Your task to perform on an android device: Open Yahoo.com Image 0: 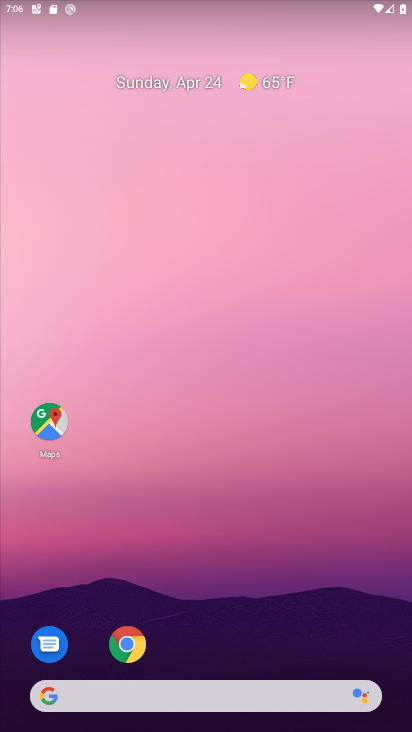
Step 0: press home button
Your task to perform on an android device: Open Yahoo.com Image 1: 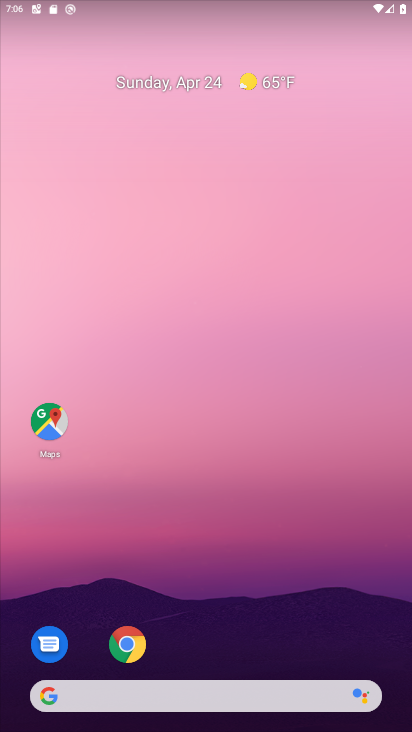
Step 1: click (124, 638)
Your task to perform on an android device: Open Yahoo.com Image 2: 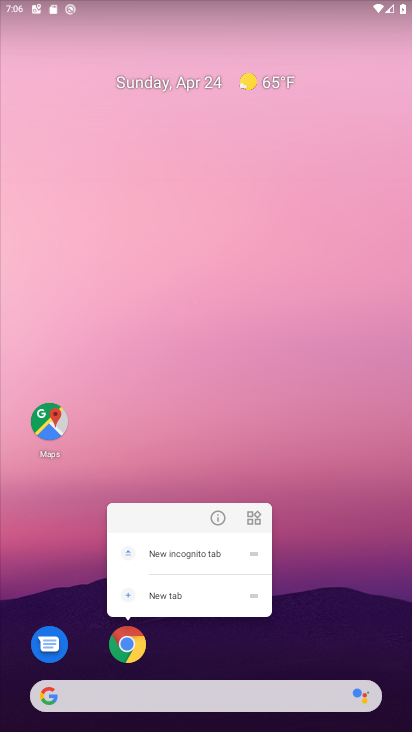
Step 2: click (125, 639)
Your task to perform on an android device: Open Yahoo.com Image 3: 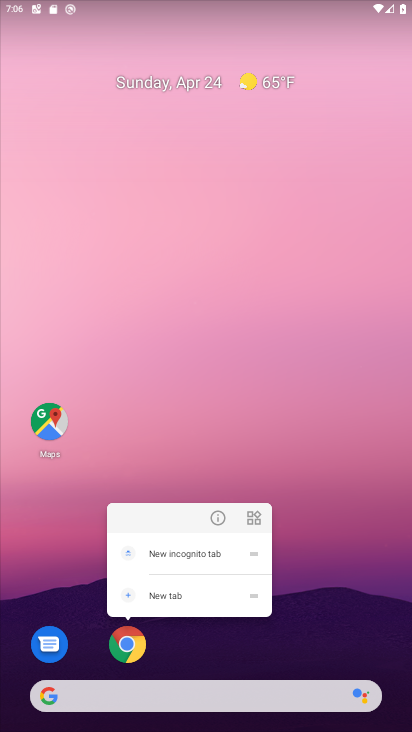
Step 3: click (282, 649)
Your task to perform on an android device: Open Yahoo.com Image 4: 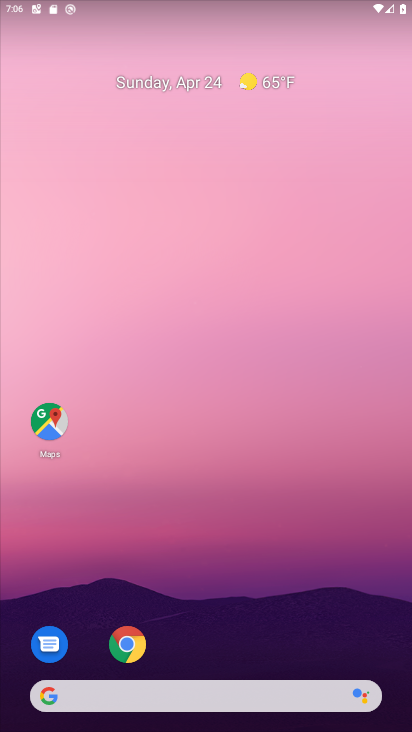
Step 4: click (124, 638)
Your task to perform on an android device: Open Yahoo.com Image 5: 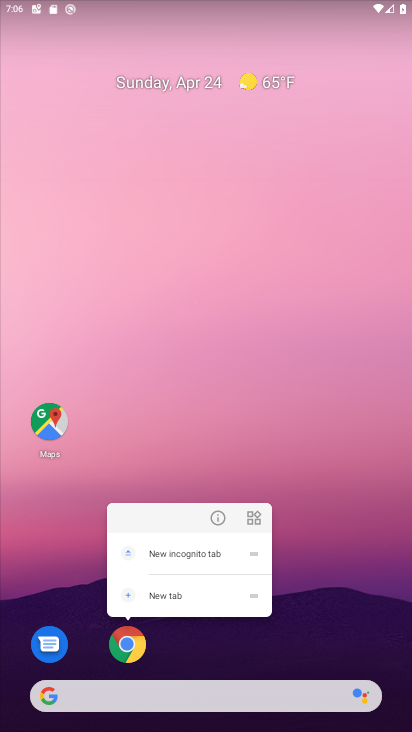
Step 5: click (205, 650)
Your task to perform on an android device: Open Yahoo.com Image 6: 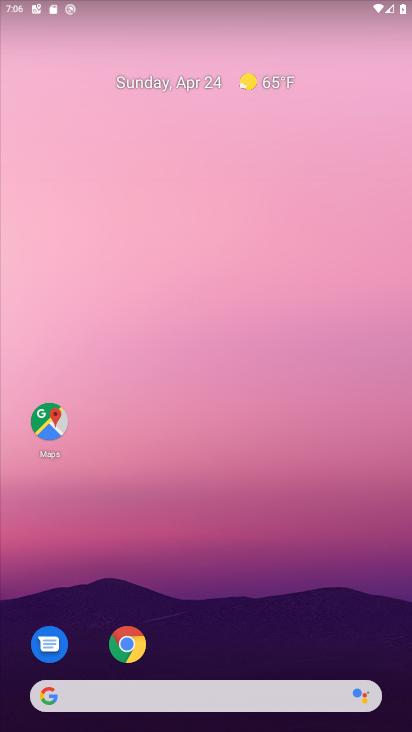
Step 6: drag from (295, 653) to (306, 119)
Your task to perform on an android device: Open Yahoo.com Image 7: 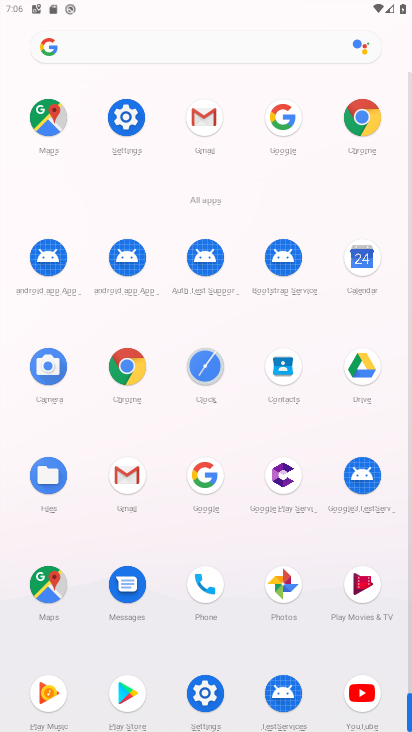
Step 7: click (362, 111)
Your task to perform on an android device: Open Yahoo.com Image 8: 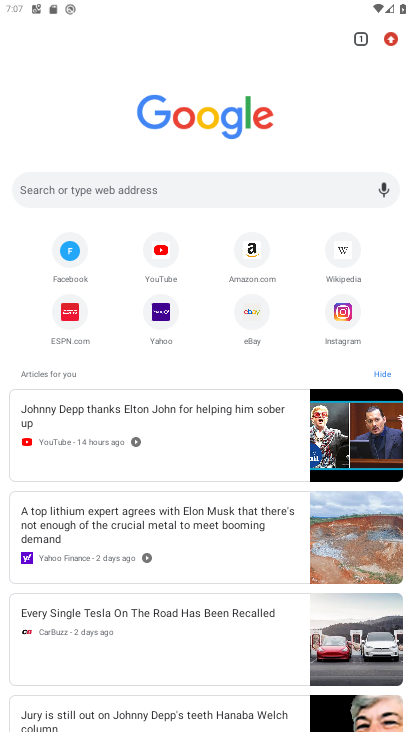
Step 8: click (158, 309)
Your task to perform on an android device: Open Yahoo.com Image 9: 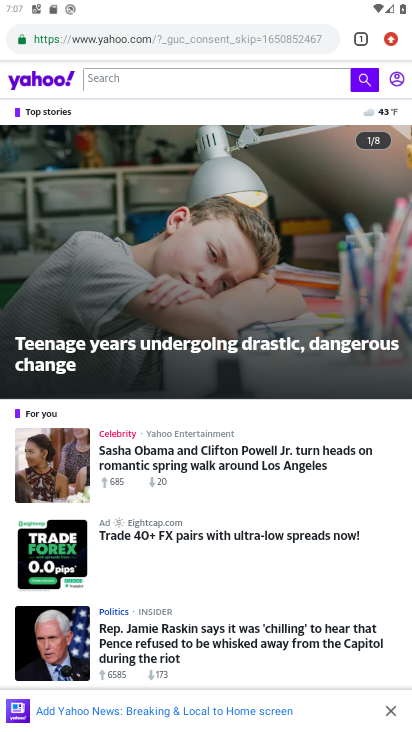
Step 9: task complete